Your task to perform on an android device: turn on priority inbox in the gmail app Image 0: 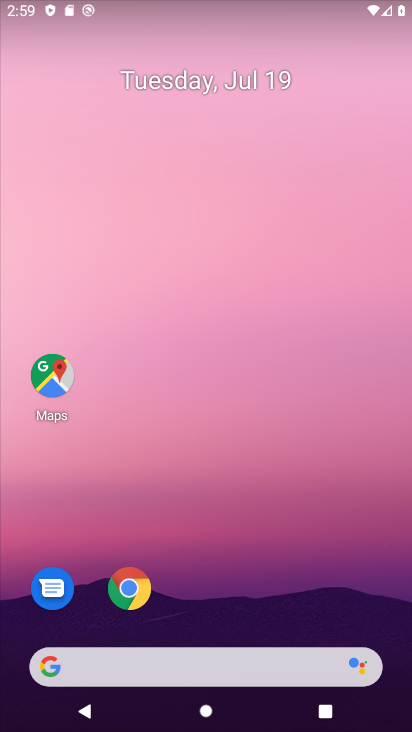
Step 0: drag from (233, 555) to (193, 82)
Your task to perform on an android device: turn on priority inbox in the gmail app Image 1: 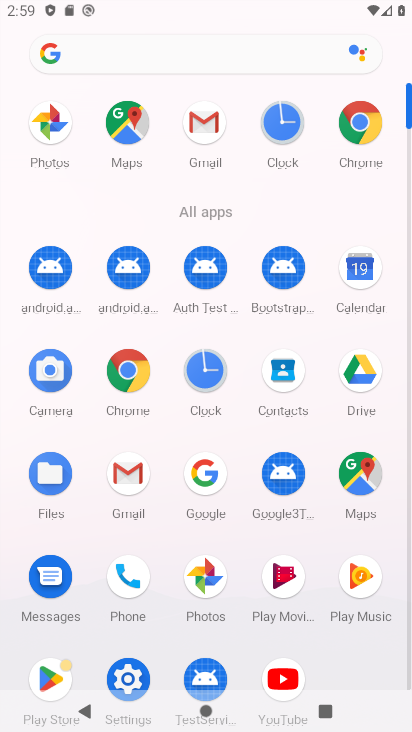
Step 1: click (202, 124)
Your task to perform on an android device: turn on priority inbox in the gmail app Image 2: 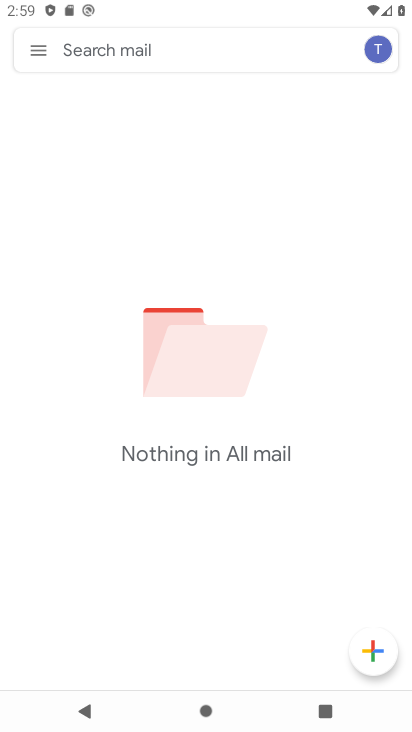
Step 2: click (35, 48)
Your task to perform on an android device: turn on priority inbox in the gmail app Image 3: 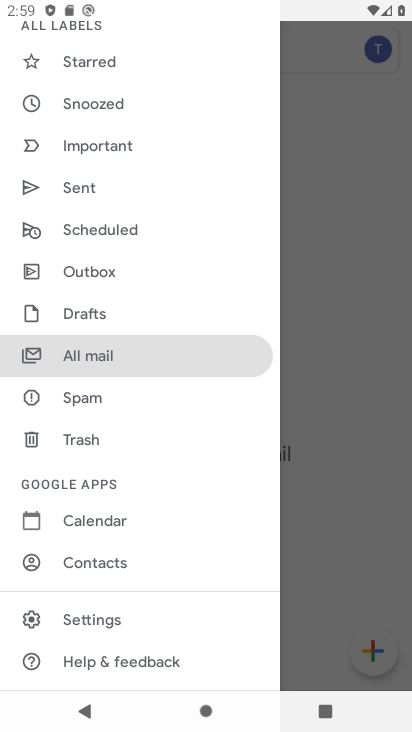
Step 3: click (101, 620)
Your task to perform on an android device: turn on priority inbox in the gmail app Image 4: 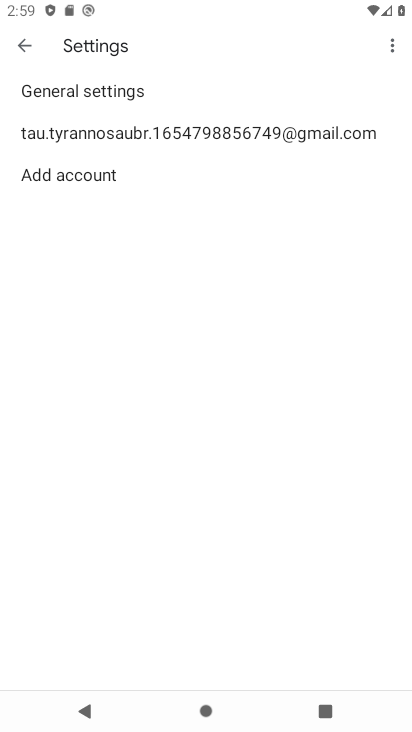
Step 4: click (144, 133)
Your task to perform on an android device: turn on priority inbox in the gmail app Image 5: 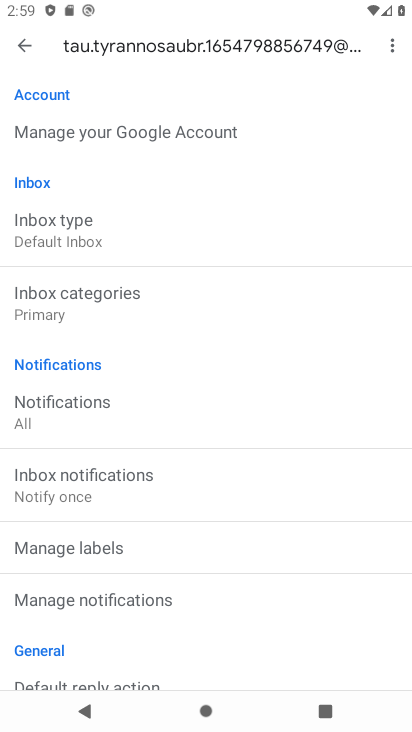
Step 5: click (64, 228)
Your task to perform on an android device: turn on priority inbox in the gmail app Image 6: 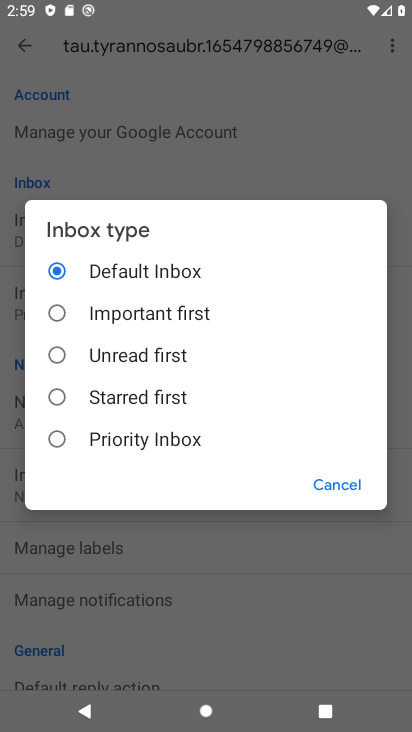
Step 6: click (54, 434)
Your task to perform on an android device: turn on priority inbox in the gmail app Image 7: 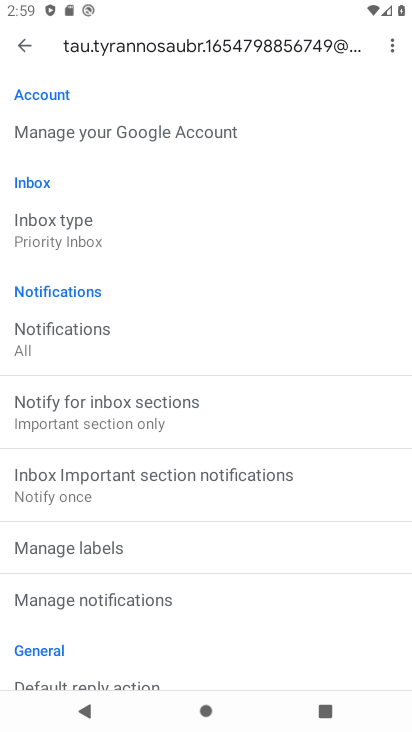
Step 7: task complete